Your task to perform on an android device: change the clock display to digital Image 0: 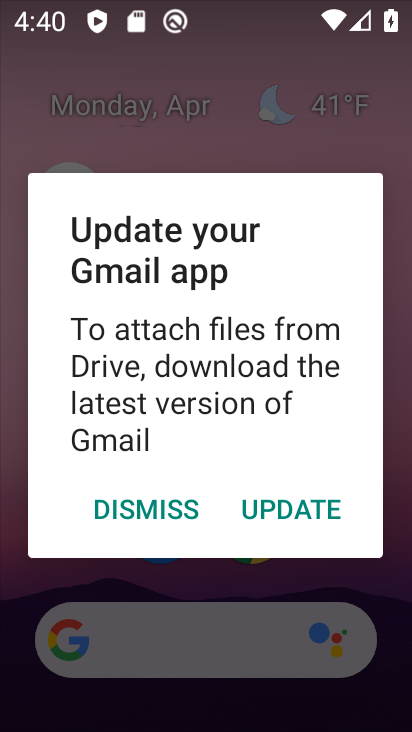
Step 0: press back button
Your task to perform on an android device: change the clock display to digital Image 1: 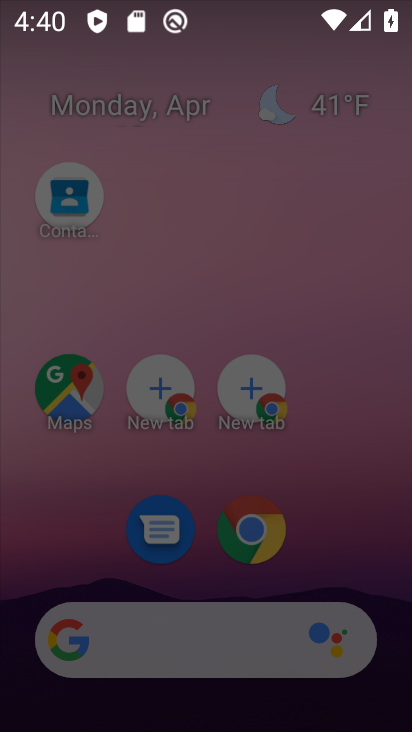
Step 1: drag from (207, 573) to (322, 61)
Your task to perform on an android device: change the clock display to digital Image 2: 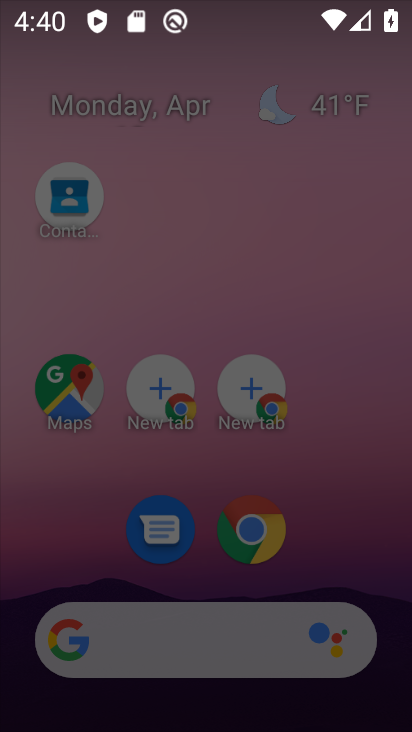
Step 2: click (316, 264)
Your task to perform on an android device: change the clock display to digital Image 3: 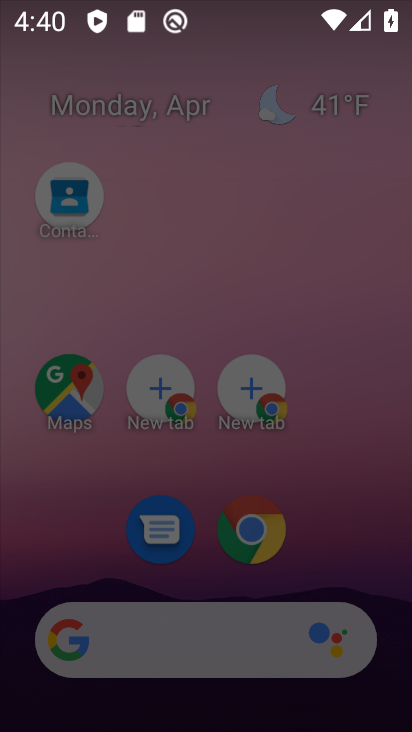
Step 3: click (243, 462)
Your task to perform on an android device: change the clock display to digital Image 4: 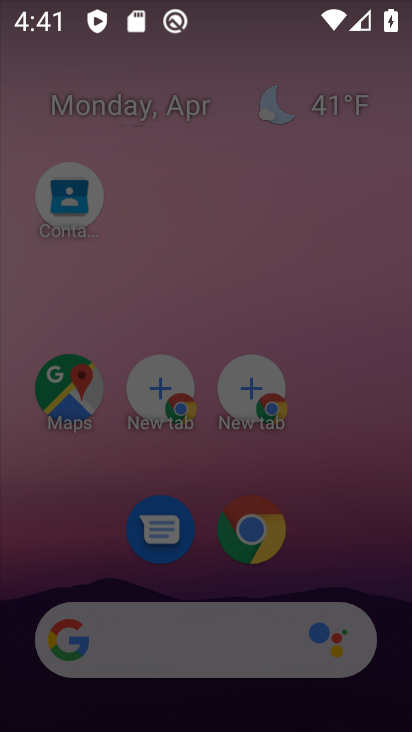
Step 4: click (250, 457)
Your task to perform on an android device: change the clock display to digital Image 5: 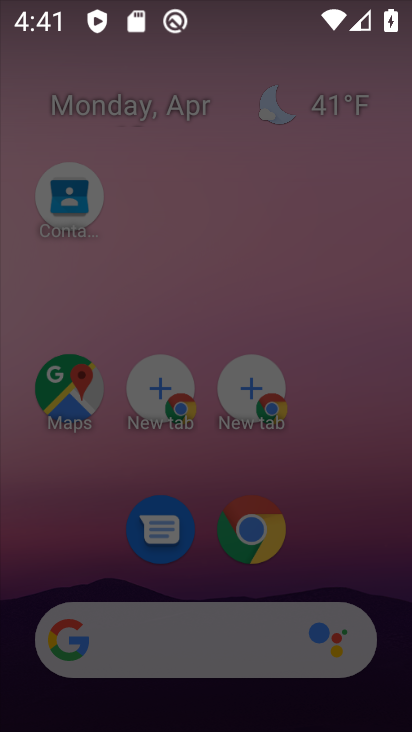
Step 5: click (209, 239)
Your task to perform on an android device: change the clock display to digital Image 6: 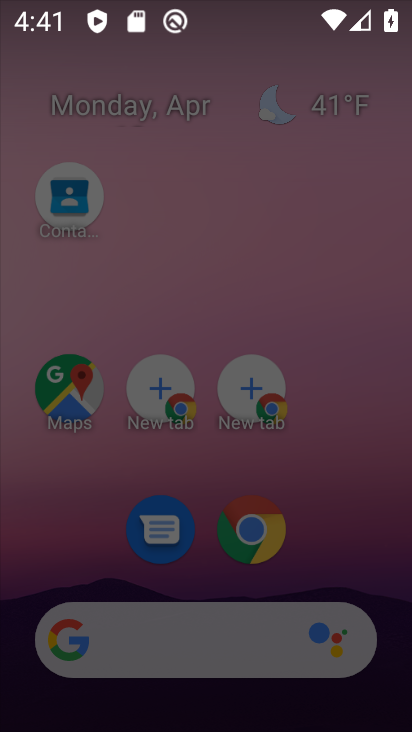
Step 6: click (212, 344)
Your task to perform on an android device: change the clock display to digital Image 7: 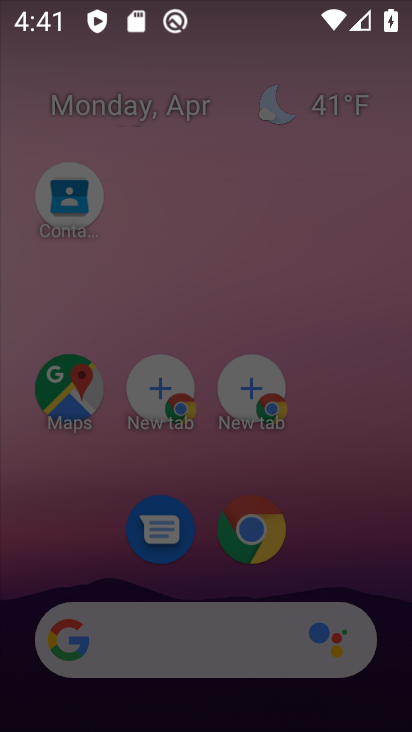
Step 7: drag from (325, 503) to (191, 56)
Your task to perform on an android device: change the clock display to digital Image 8: 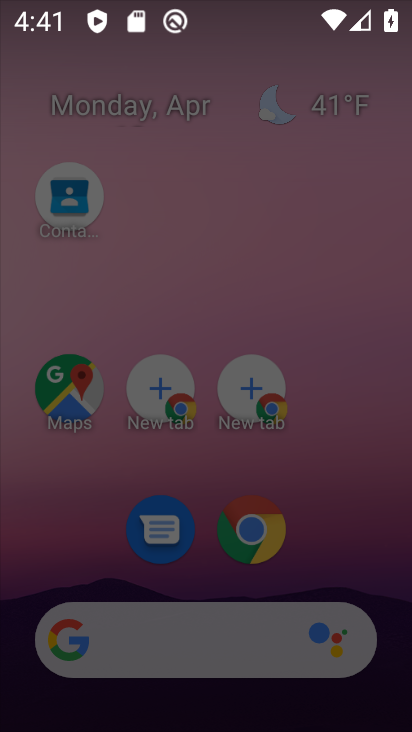
Step 8: click (182, 517)
Your task to perform on an android device: change the clock display to digital Image 9: 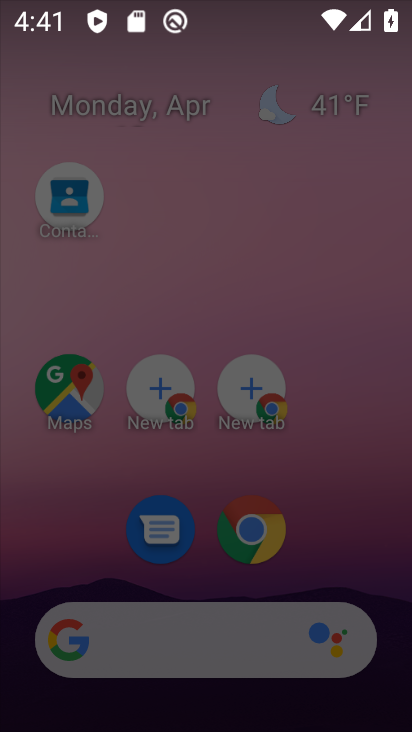
Step 9: press back button
Your task to perform on an android device: change the clock display to digital Image 10: 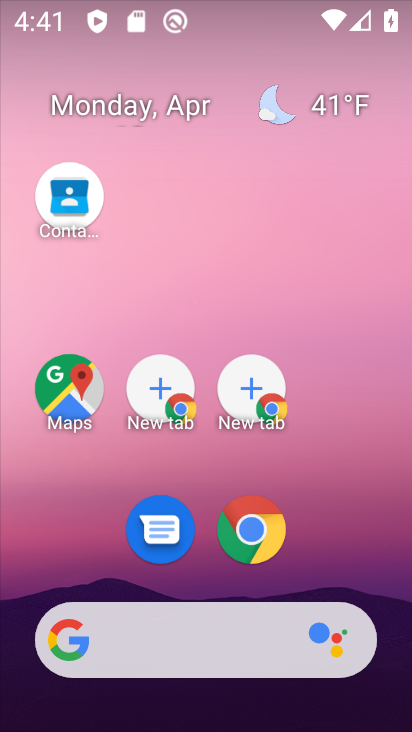
Step 10: drag from (327, 445) to (365, 3)
Your task to perform on an android device: change the clock display to digital Image 11: 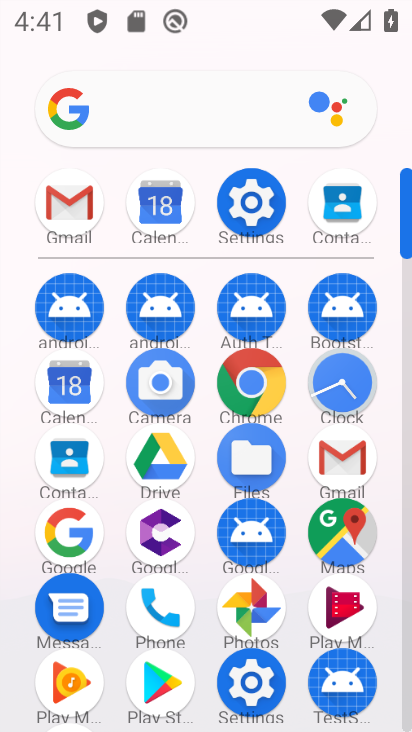
Step 11: click (353, 376)
Your task to perform on an android device: change the clock display to digital Image 12: 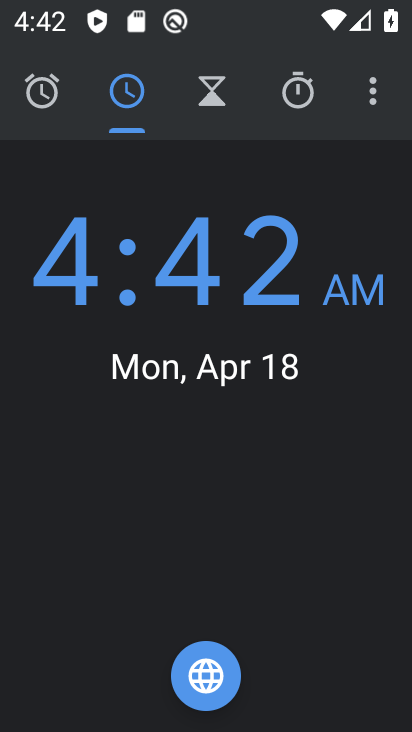
Step 12: click (370, 87)
Your task to perform on an android device: change the clock display to digital Image 13: 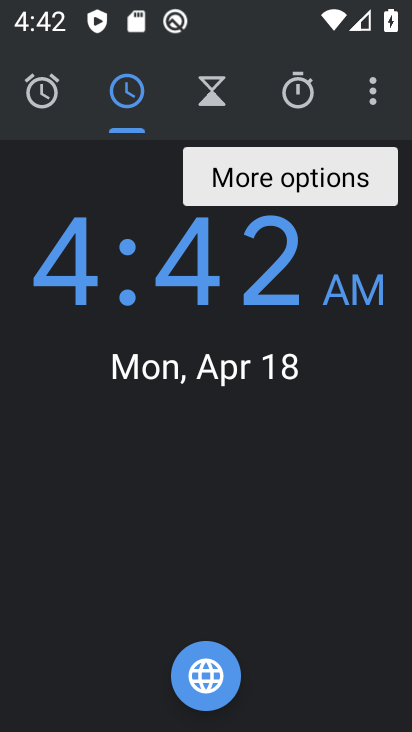
Step 13: click (372, 82)
Your task to perform on an android device: change the clock display to digital Image 14: 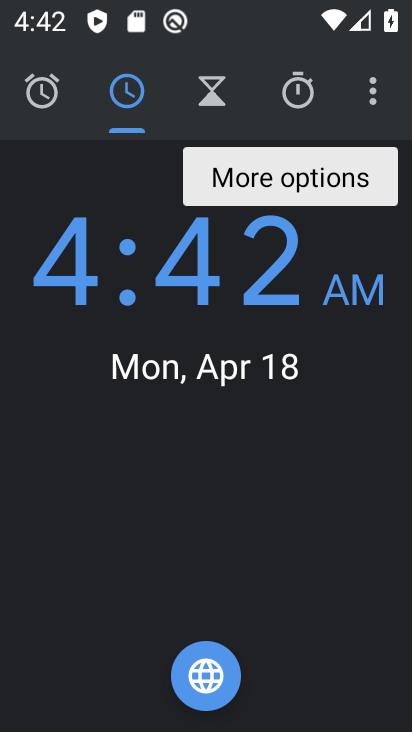
Step 14: click (372, 82)
Your task to perform on an android device: change the clock display to digital Image 15: 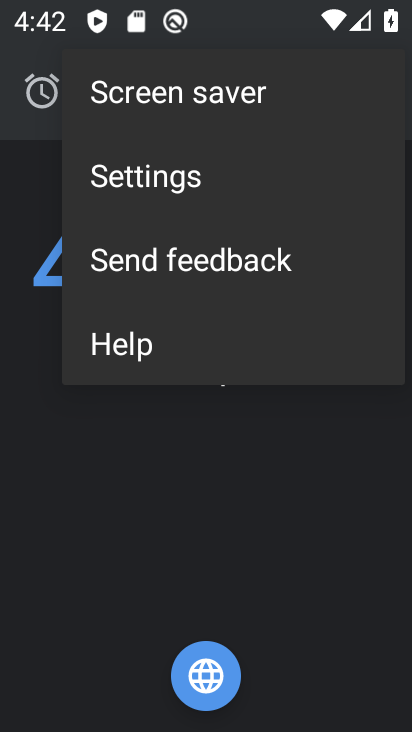
Step 15: click (158, 191)
Your task to perform on an android device: change the clock display to digital Image 16: 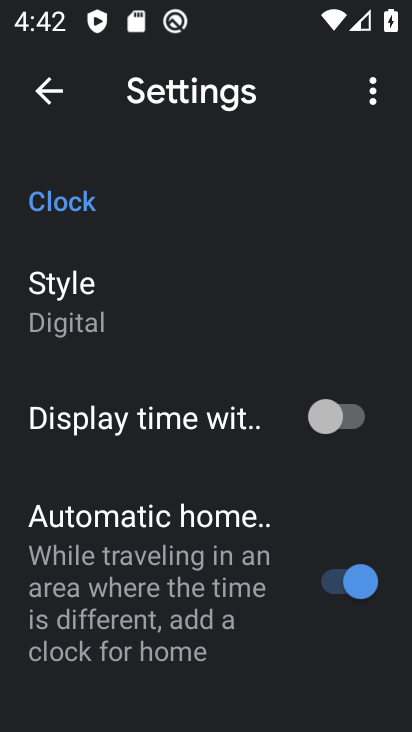
Step 16: click (117, 307)
Your task to perform on an android device: change the clock display to digital Image 17: 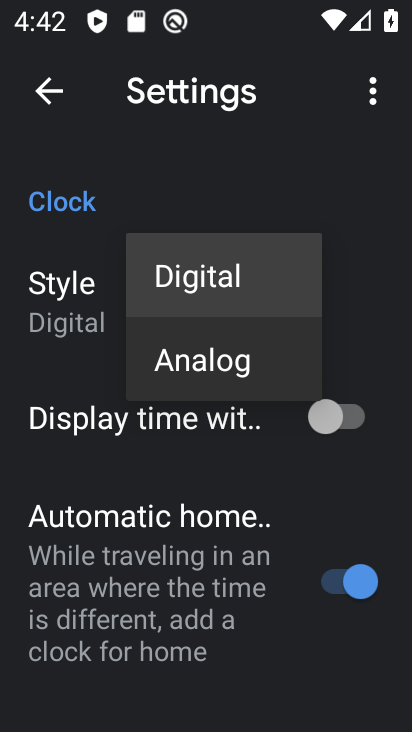
Step 17: click (186, 284)
Your task to perform on an android device: change the clock display to digital Image 18: 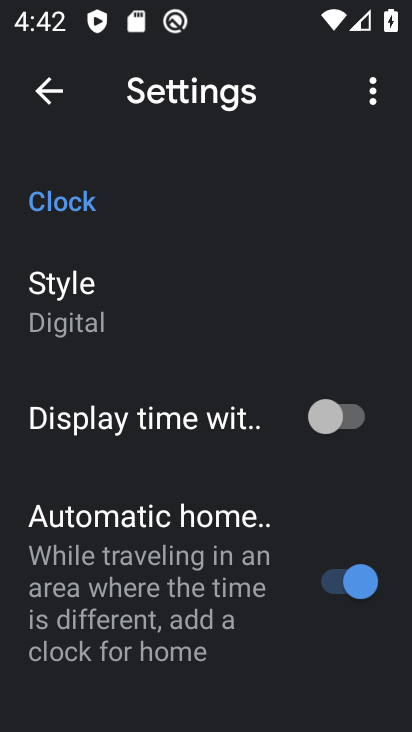
Step 18: task complete